Your task to perform on an android device: search for starred emails in the gmail app Image 0: 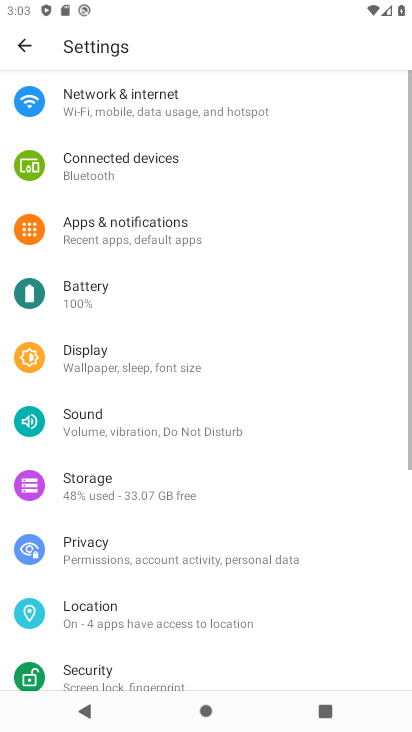
Step 0: press home button
Your task to perform on an android device: search for starred emails in the gmail app Image 1: 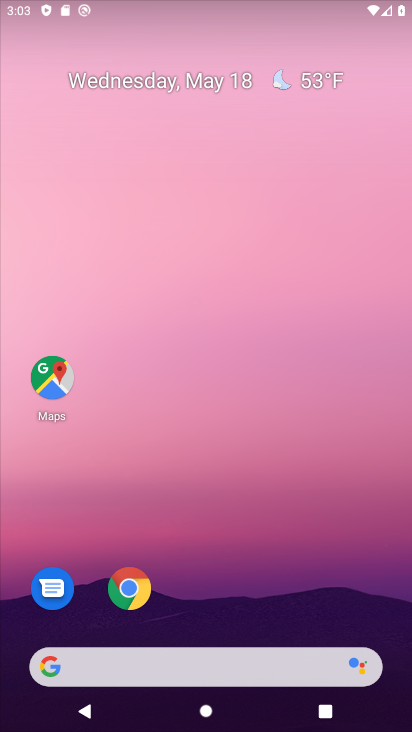
Step 1: drag from (289, 486) to (339, 95)
Your task to perform on an android device: search for starred emails in the gmail app Image 2: 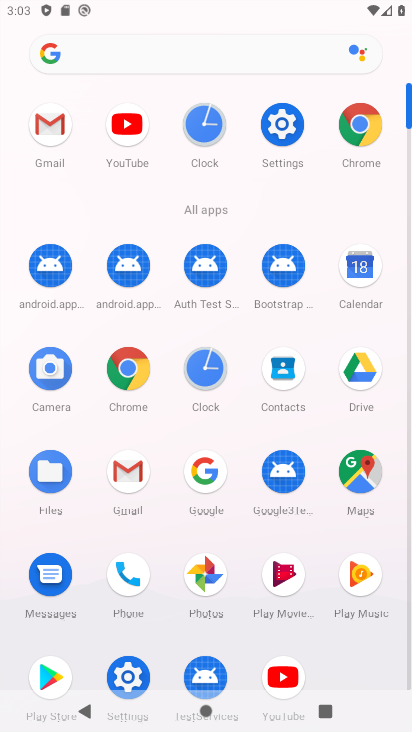
Step 2: click (70, 133)
Your task to perform on an android device: search for starred emails in the gmail app Image 3: 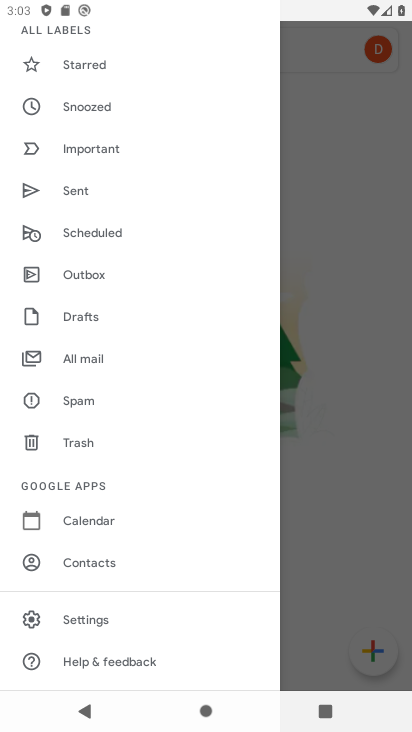
Step 3: drag from (107, 108) to (126, 467)
Your task to perform on an android device: search for starred emails in the gmail app Image 4: 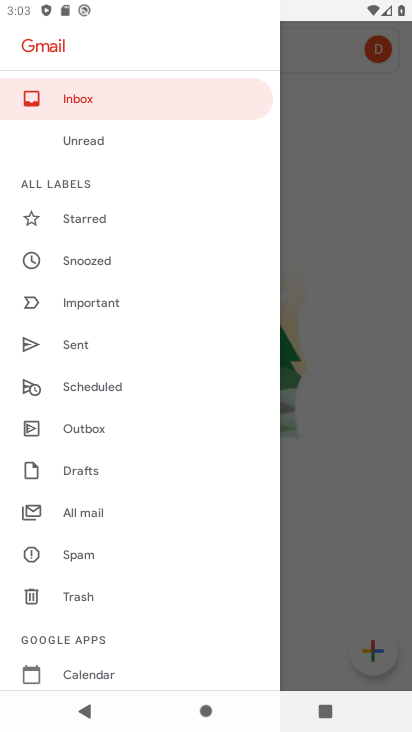
Step 4: click (89, 212)
Your task to perform on an android device: search for starred emails in the gmail app Image 5: 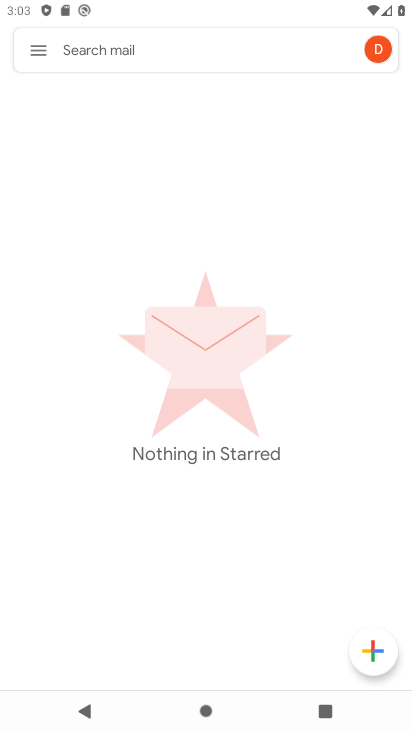
Step 5: task complete